Your task to perform on an android device: Open maps Image 0: 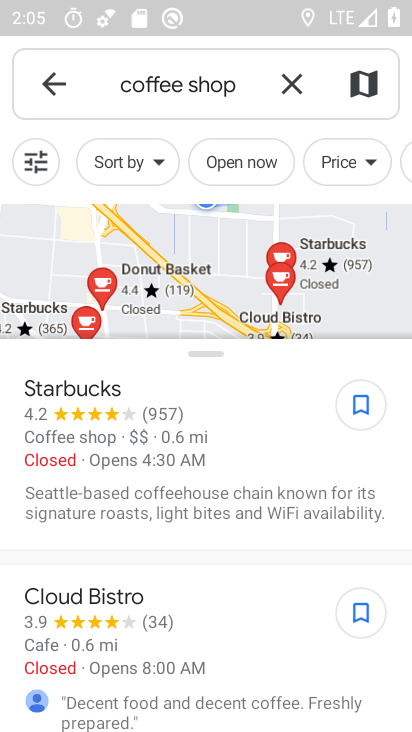
Step 0: press home button
Your task to perform on an android device: Open maps Image 1: 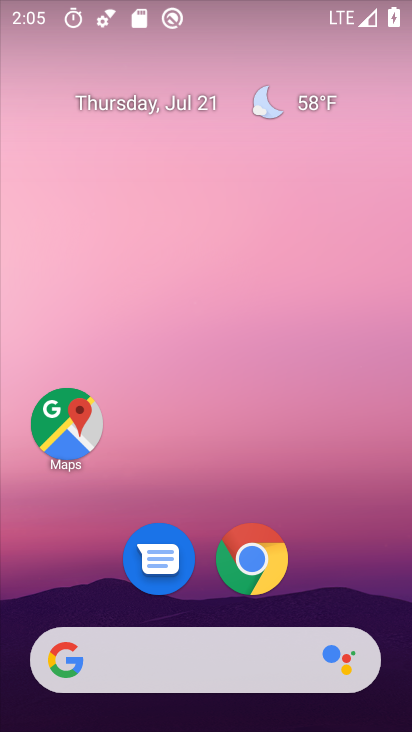
Step 1: drag from (330, 572) to (363, 114)
Your task to perform on an android device: Open maps Image 2: 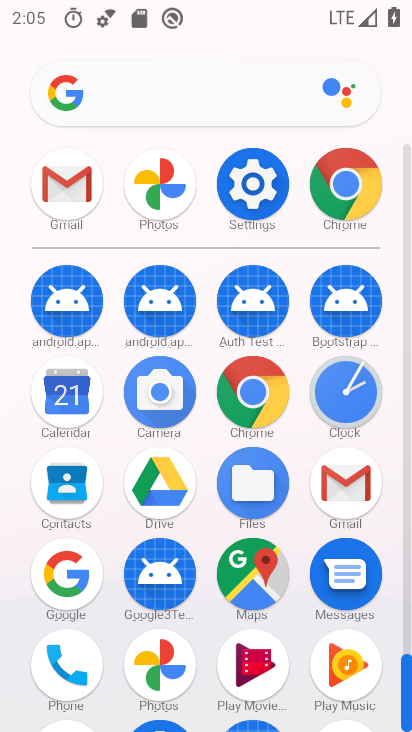
Step 2: click (257, 570)
Your task to perform on an android device: Open maps Image 3: 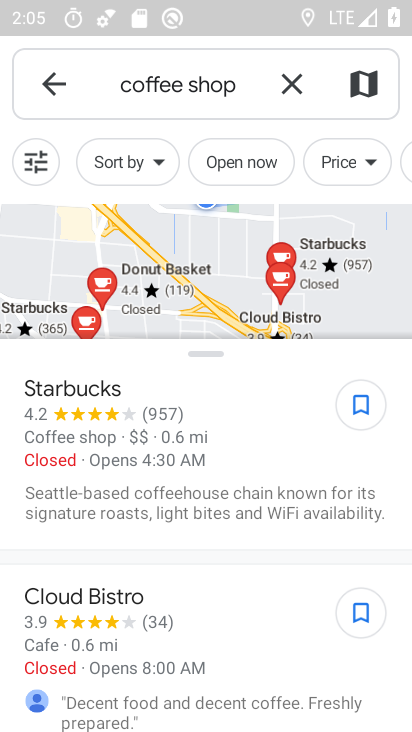
Step 3: task complete